Your task to perform on an android device: Open Android settings Image 0: 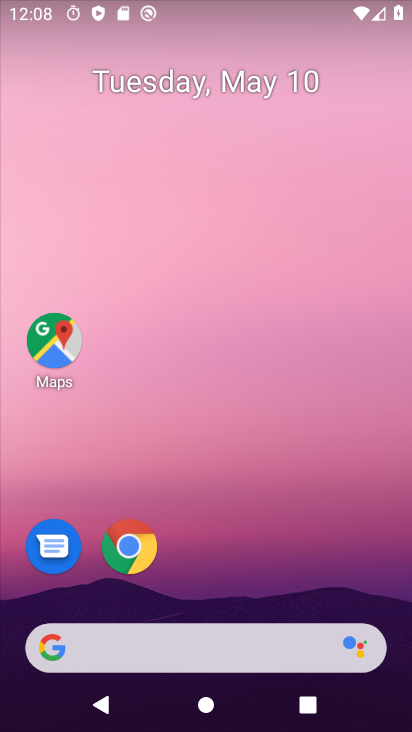
Step 0: press home button
Your task to perform on an android device: Open Android settings Image 1: 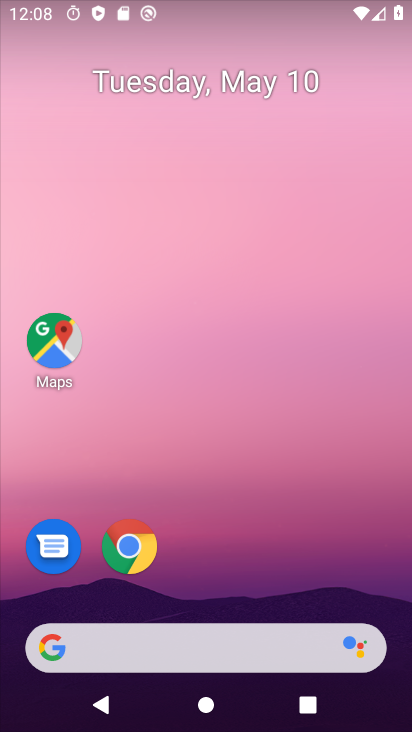
Step 1: drag from (241, 553) to (207, 321)
Your task to perform on an android device: Open Android settings Image 2: 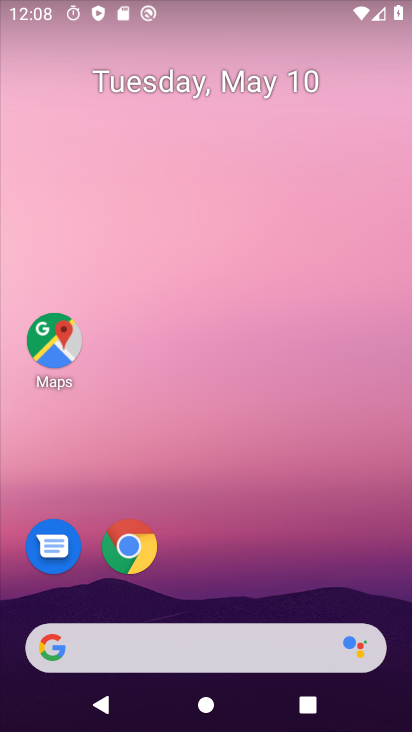
Step 2: drag from (295, 262) to (271, 114)
Your task to perform on an android device: Open Android settings Image 3: 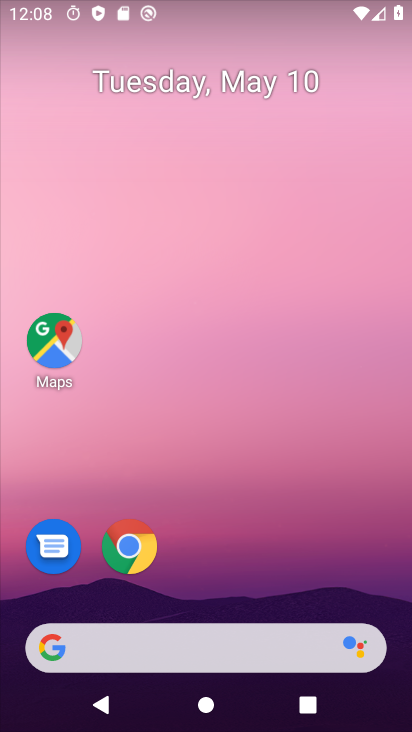
Step 3: drag from (294, 568) to (277, 2)
Your task to perform on an android device: Open Android settings Image 4: 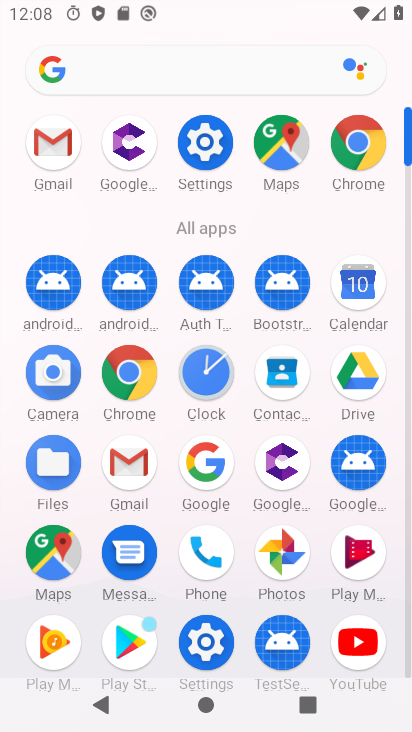
Step 4: click (202, 126)
Your task to perform on an android device: Open Android settings Image 5: 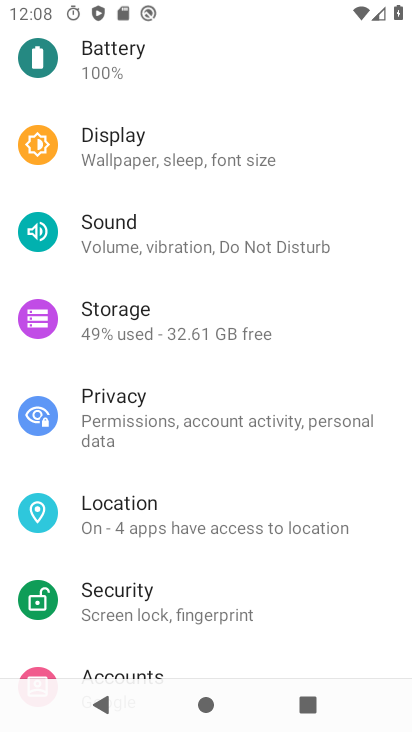
Step 5: drag from (189, 557) to (161, 18)
Your task to perform on an android device: Open Android settings Image 6: 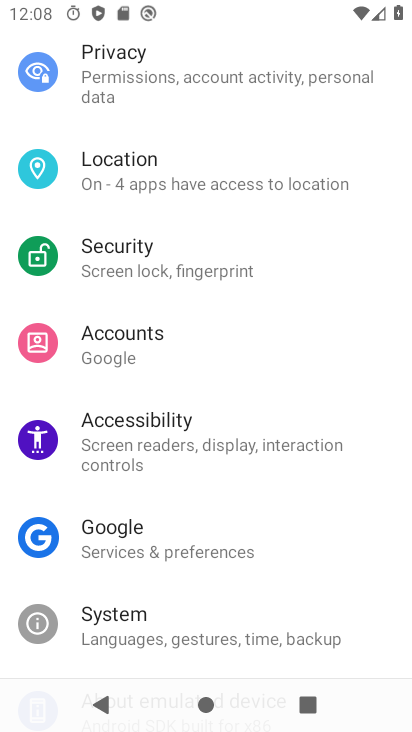
Step 6: drag from (151, 369) to (151, 1)
Your task to perform on an android device: Open Android settings Image 7: 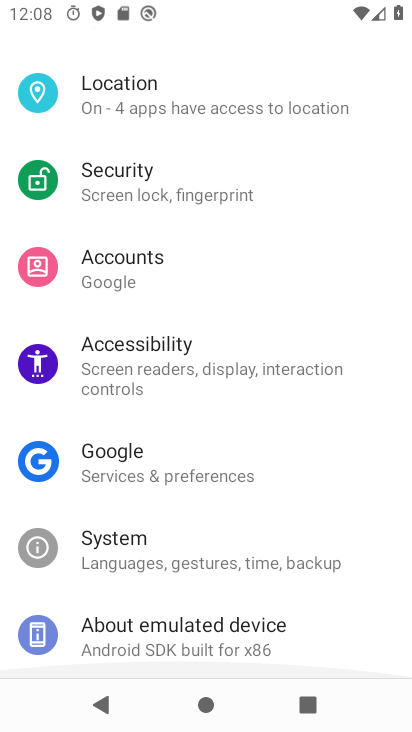
Step 7: drag from (187, 208) to (187, 83)
Your task to perform on an android device: Open Android settings Image 8: 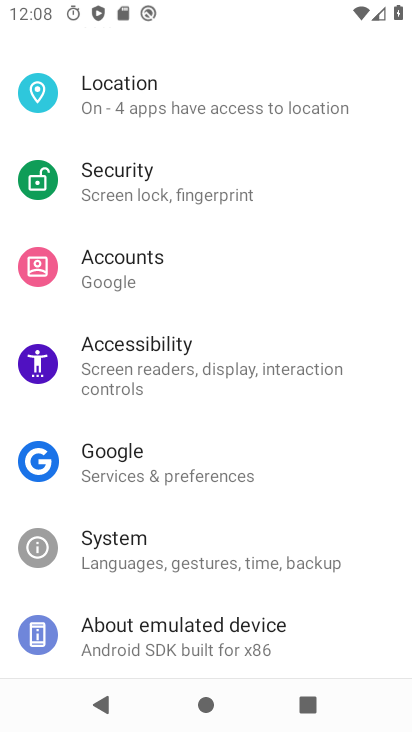
Step 8: click (136, 613)
Your task to perform on an android device: Open Android settings Image 9: 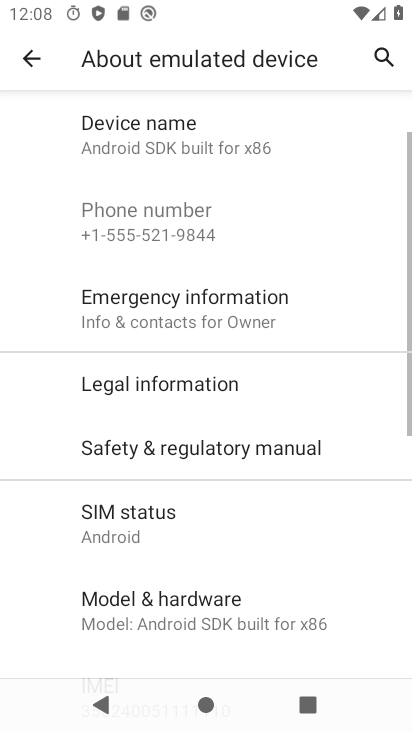
Step 9: drag from (199, 550) to (217, 255)
Your task to perform on an android device: Open Android settings Image 10: 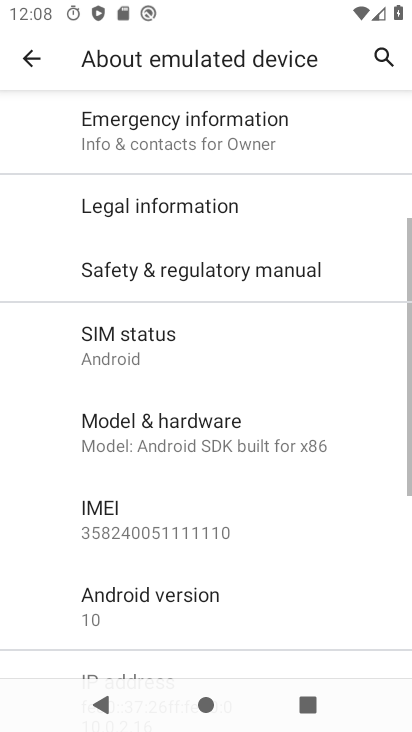
Step 10: click (159, 597)
Your task to perform on an android device: Open Android settings Image 11: 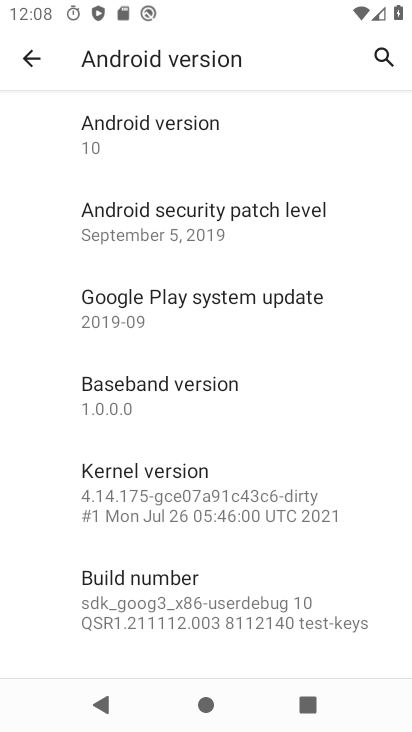
Step 11: task complete